Your task to perform on an android device: Open wifi settings Image 0: 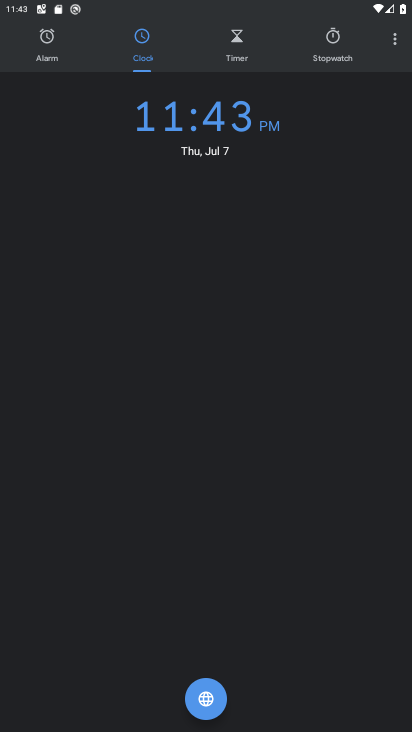
Step 0: press home button
Your task to perform on an android device: Open wifi settings Image 1: 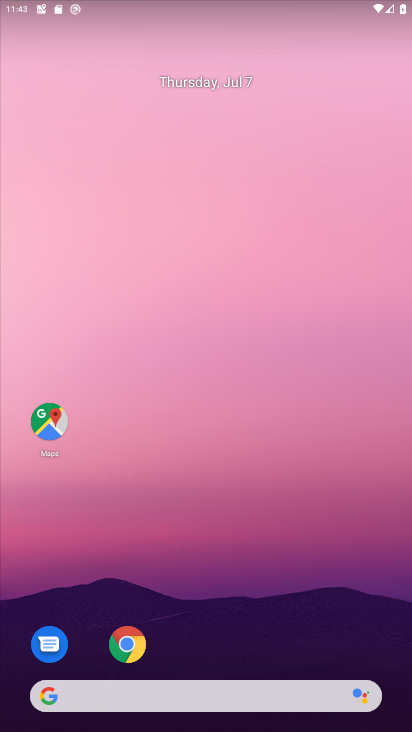
Step 1: drag from (116, 569) to (265, 22)
Your task to perform on an android device: Open wifi settings Image 2: 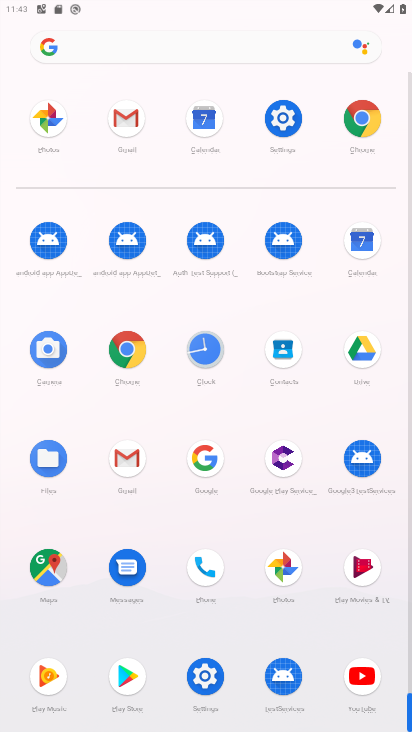
Step 2: click (195, 688)
Your task to perform on an android device: Open wifi settings Image 3: 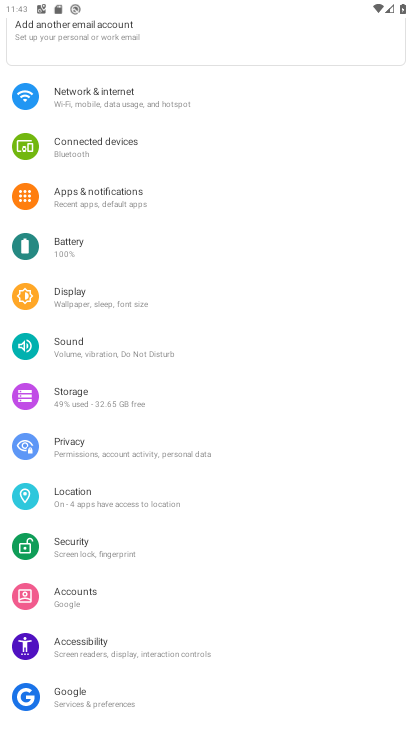
Step 3: click (83, 80)
Your task to perform on an android device: Open wifi settings Image 4: 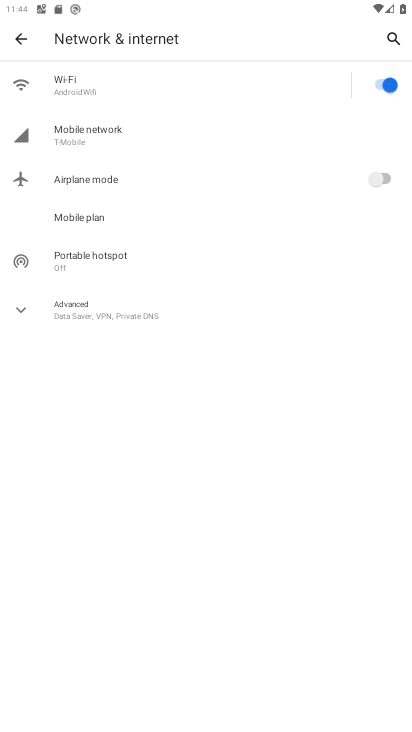
Step 4: click (77, 89)
Your task to perform on an android device: Open wifi settings Image 5: 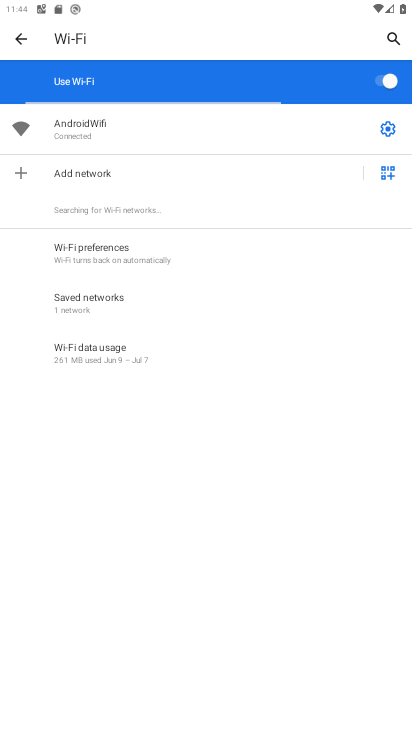
Step 5: task complete